Your task to perform on an android device: turn notification dots off Image 0: 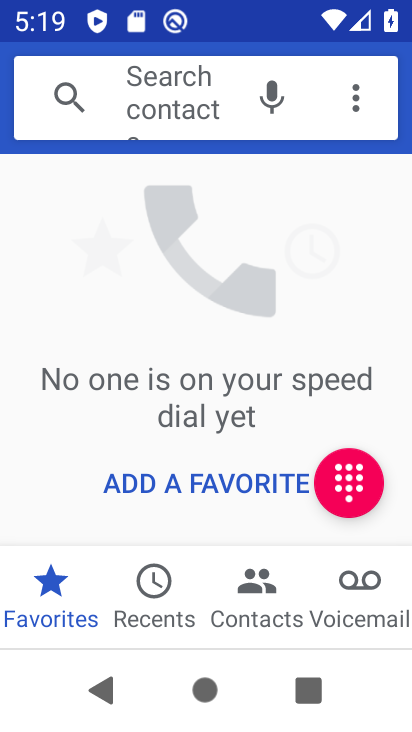
Step 0: press back button
Your task to perform on an android device: turn notification dots off Image 1: 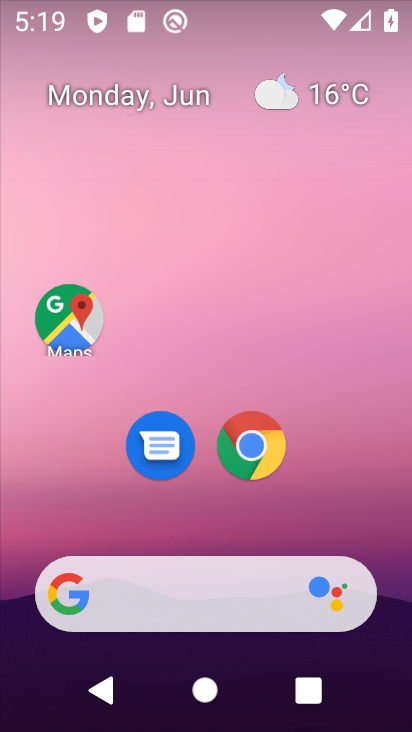
Step 1: drag from (319, 514) to (253, 49)
Your task to perform on an android device: turn notification dots off Image 2: 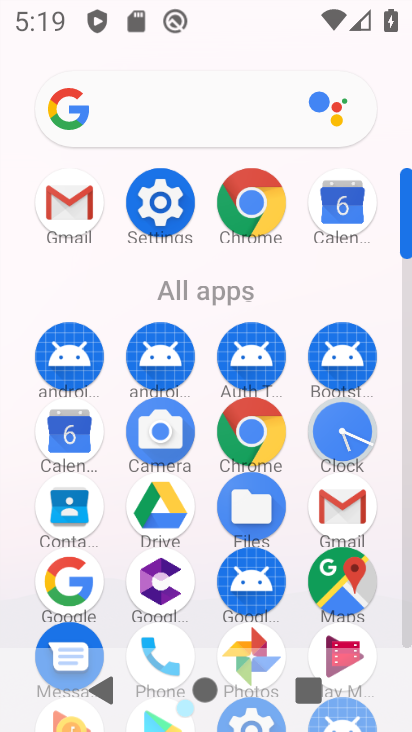
Step 2: click (160, 197)
Your task to perform on an android device: turn notification dots off Image 3: 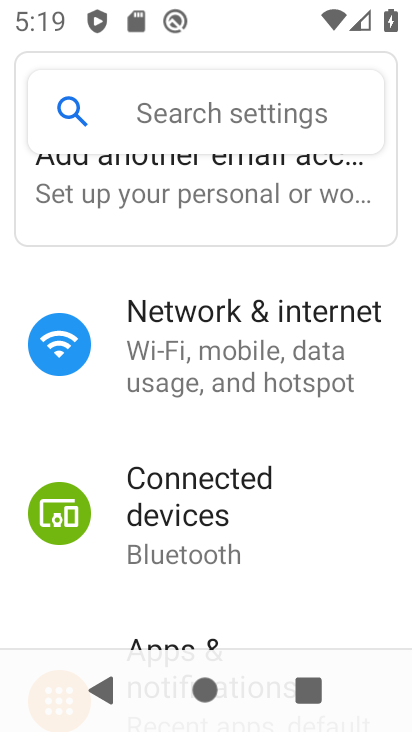
Step 3: drag from (169, 433) to (222, 358)
Your task to perform on an android device: turn notification dots off Image 4: 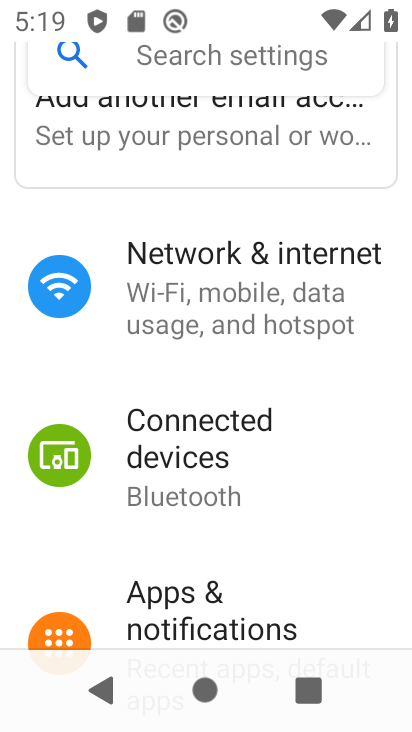
Step 4: drag from (155, 529) to (268, 357)
Your task to perform on an android device: turn notification dots off Image 5: 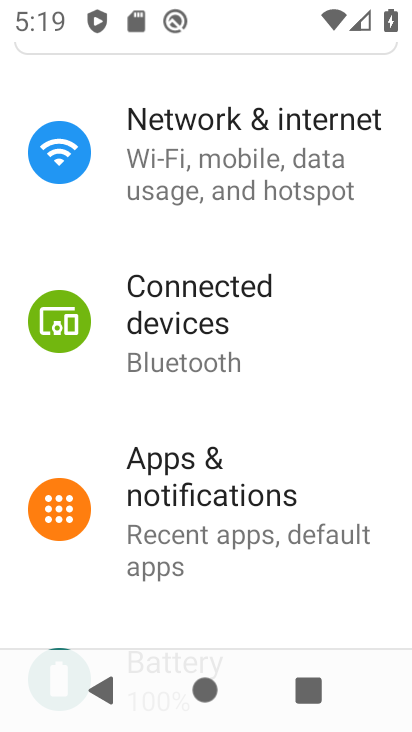
Step 5: click (196, 458)
Your task to perform on an android device: turn notification dots off Image 6: 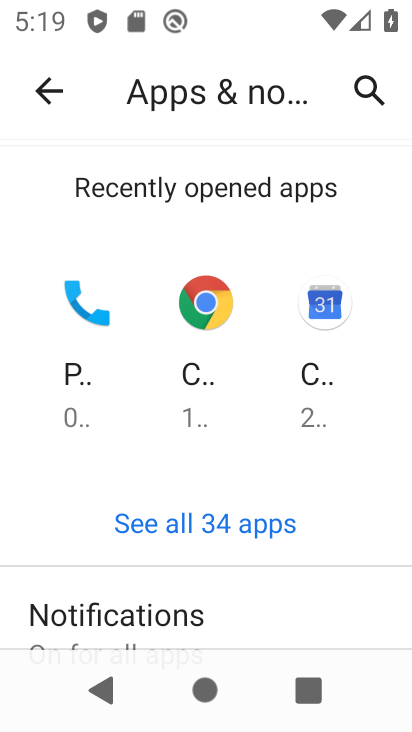
Step 6: drag from (214, 592) to (191, 360)
Your task to perform on an android device: turn notification dots off Image 7: 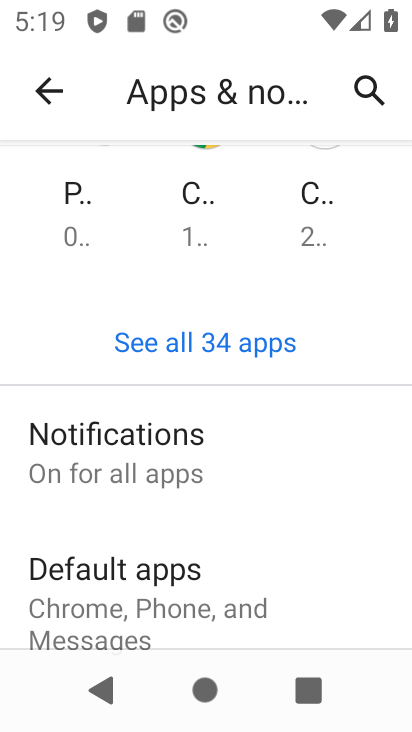
Step 7: click (163, 429)
Your task to perform on an android device: turn notification dots off Image 8: 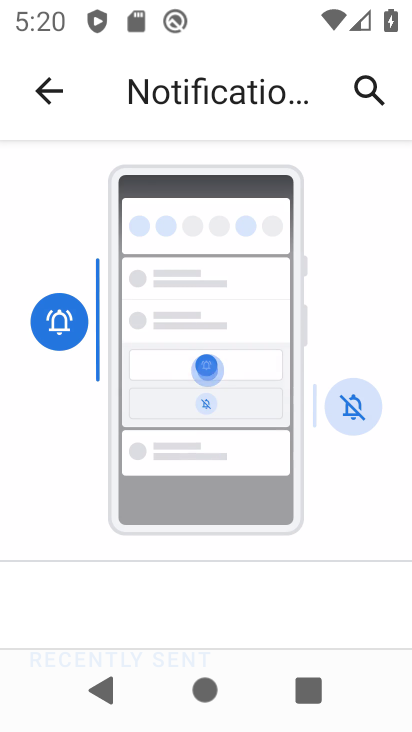
Step 8: drag from (118, 603) to (245, 377)
Your task to perform on an android device: turn notification dots off Image 9: 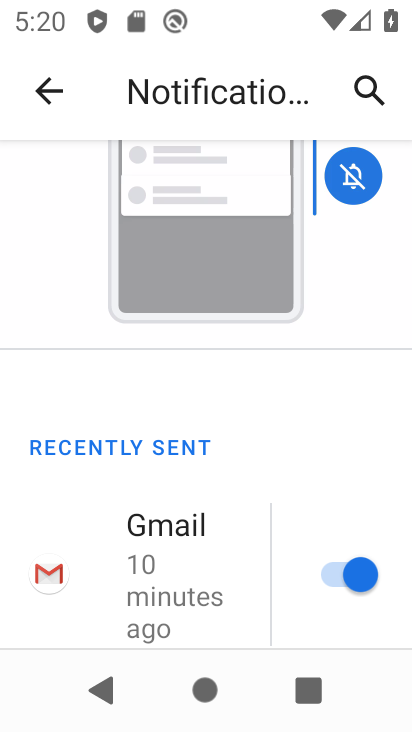
Step 9: drag from (219, 476) to (306, 277)
Your task to perform on an android device: turn notification dots off Image 10: 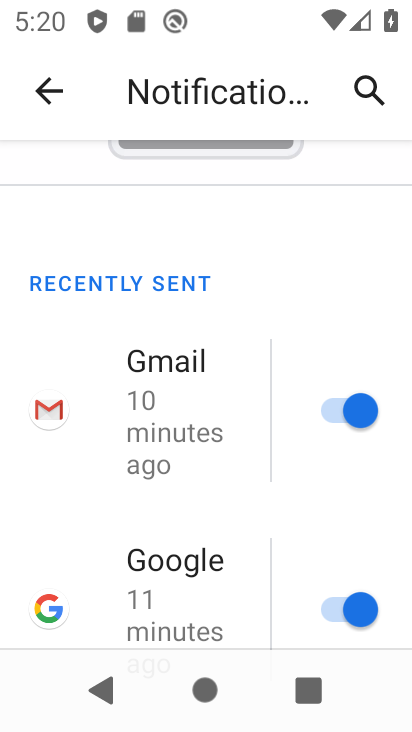
Step 10: drag from (157, 507) to (323, 282)
Your task to perform on an android device: turn notification dots off Image 11: 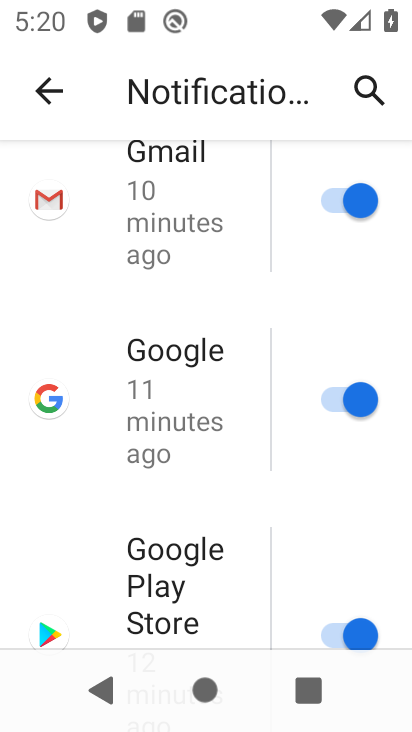
Step 11: drag from (165, 516) to (322, 279)
Your task to perform on an android device: turn notification dots off Image 12: 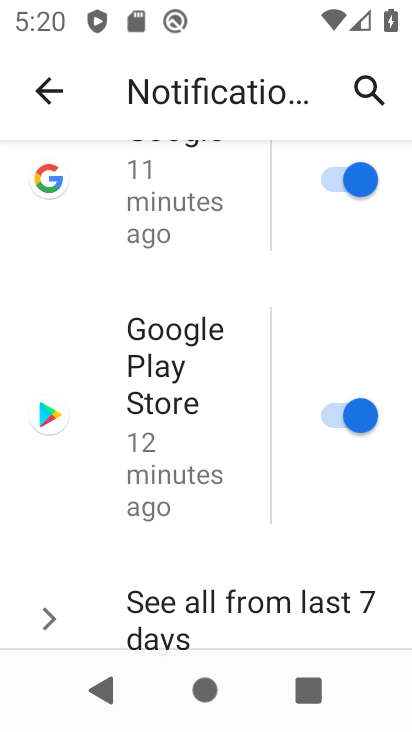
Step 12: drag from (145, 552) to (294, 310)
Your task to perform on an android device: turn notification dots off Image 13: 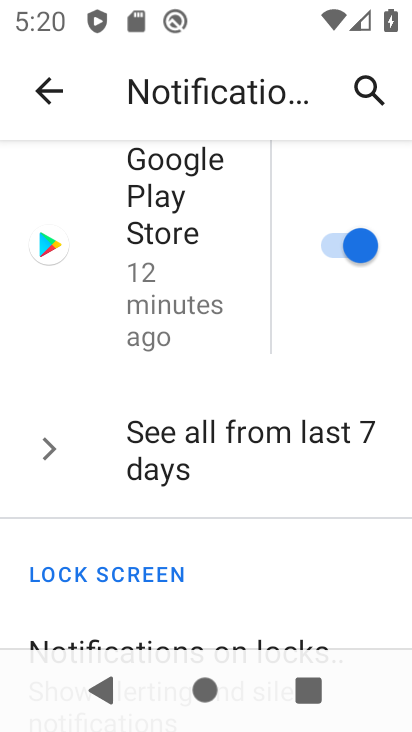
Step 13: drag from (185, 600) to (292, 452)
Your task to perform on an android device: turn notification dots off Image 14: 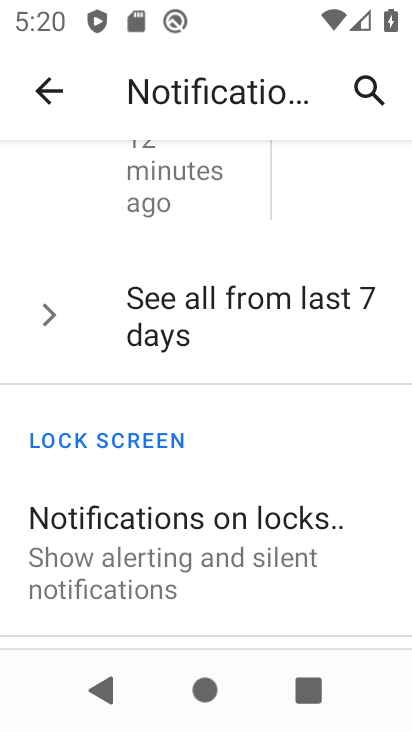
Step 14: drag from (226, 603) to (330, 435)
Your task to perform on an android device: turn notification dots off Image 15: 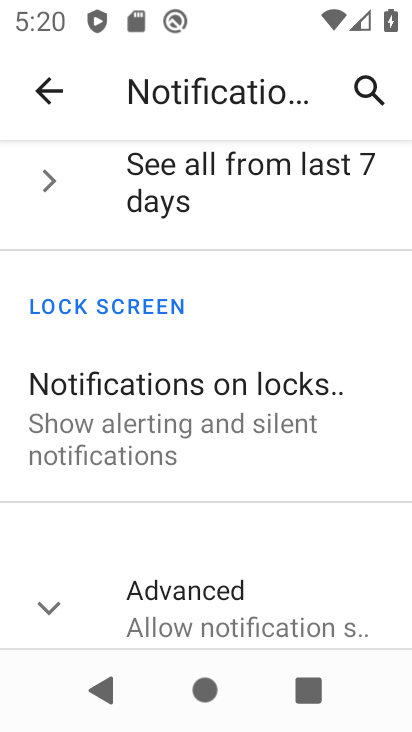
Step 15: click (217, 607)
Your task to perform on an android device: turn notification dots off Image 16: 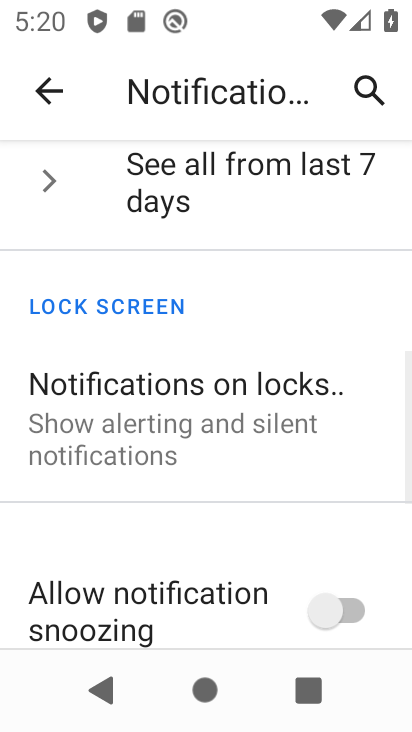
Step 16: drag from (217, 607) to (325, 326)
Your task to perform on an android device: turn notification dots off Image 17: 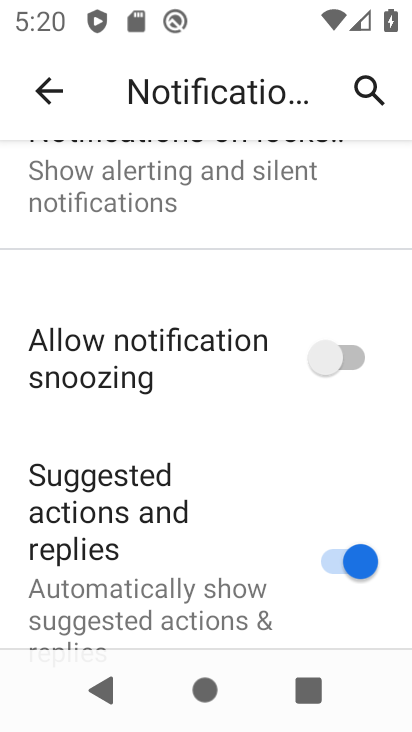
Step 17: drag from (212, 550) to (304, 264)
Your task to perform on an android device: turn notification dots off Image 18: 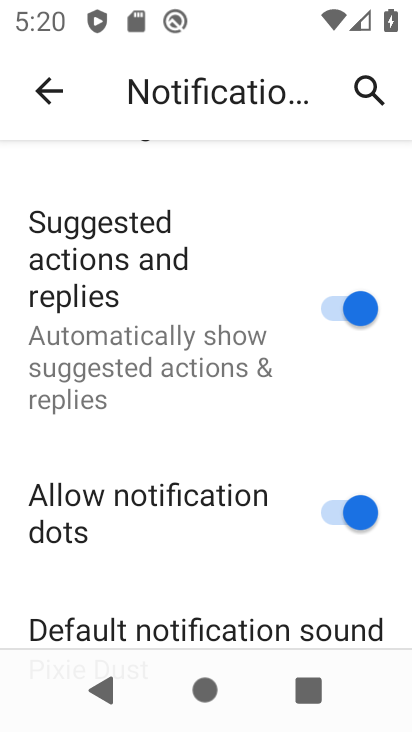
Step 18: click (344, 527)
Your task to perform on an android device: turn notification dots off Image 19: 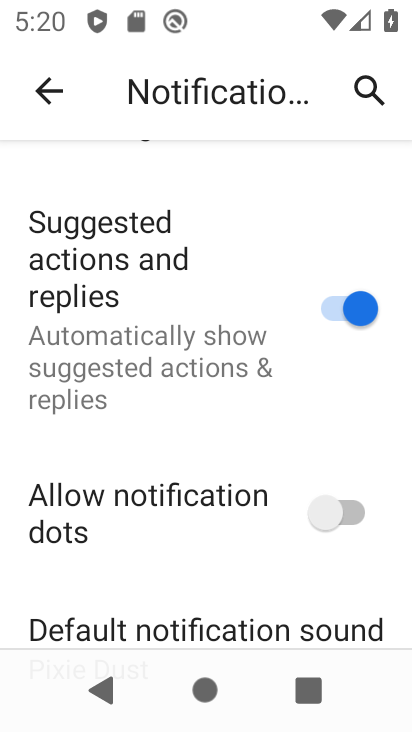
Step 19: task complete